Your task to perform on an android device: see sites visited before in the chrome app Image 0: 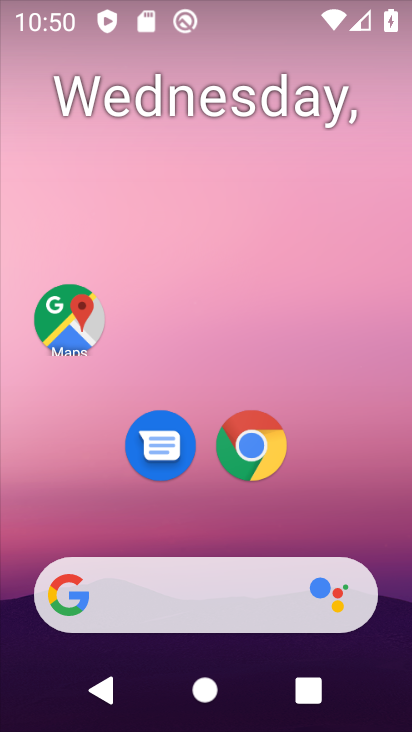
Step 0: click (271, 438)
Your task to perform on an android device: see sites visited before in the chrome app Image 1: 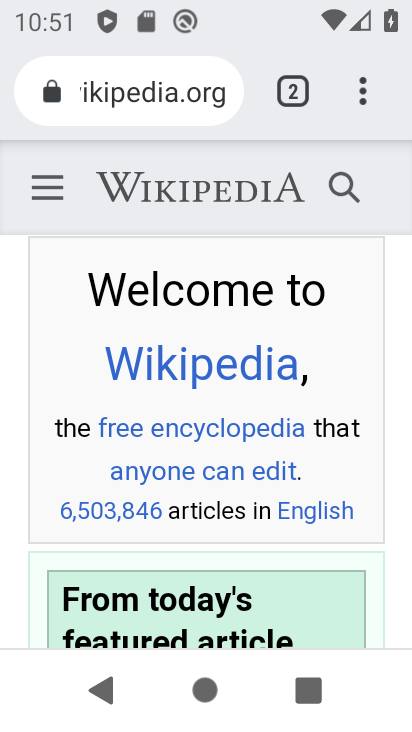
Step 1: drag from (355, 87) to (115, 459)
Your task to perform on an android device: see sites visited before in the chrome app Image 2: 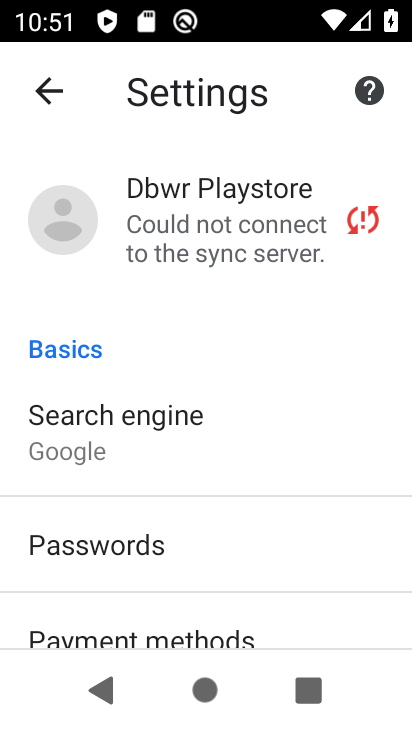
Step 2: drag from (143, 630) to (266, 151)
Your task to perform on an android device: see sites visited before in the chrome app Image 3: 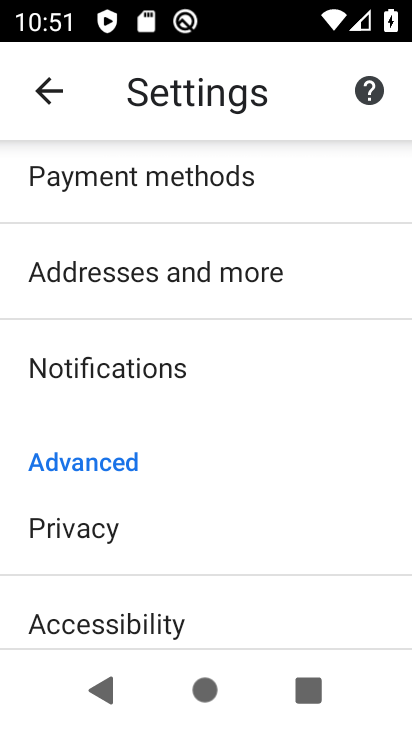
Step 3: click (31, 86)
Your task to perform on an android device: see sites visited before in the chrome app Image 4: 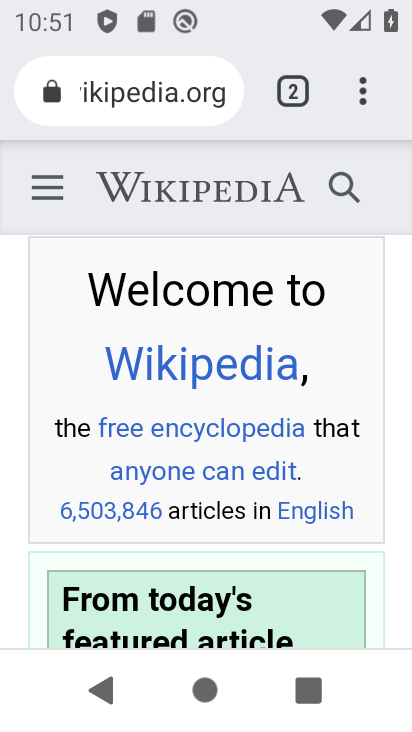
Step 4: click (379, 89)
Your task to perform on an android device: see sites visited before in the chrome app Image 5: 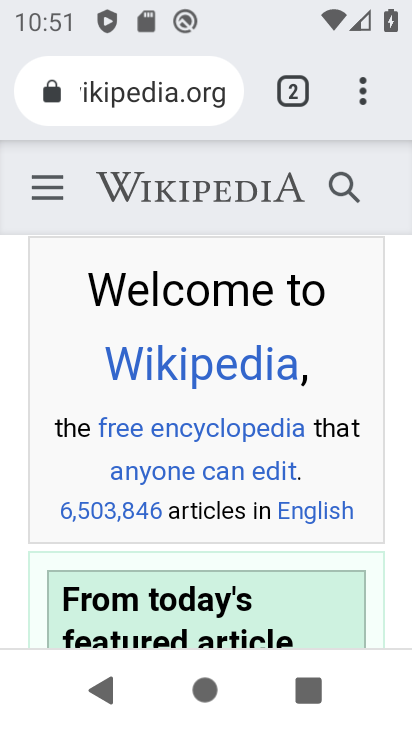
Step 5: task complete